Your task to perform on an android device: Go to calendar. Show me events next week Image 0: 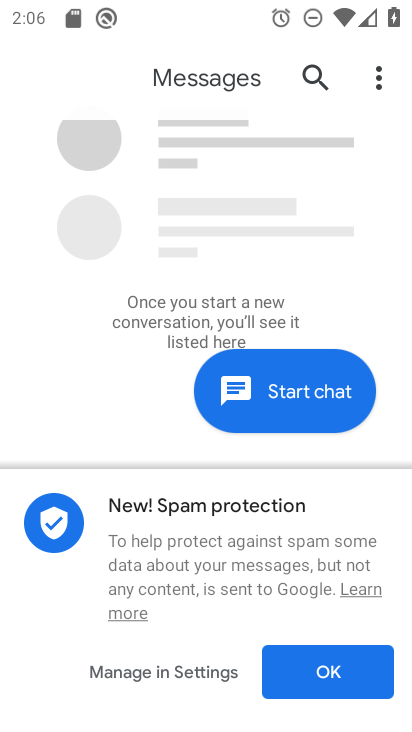
Step 0: press home button
Your task to perform on an android device: Go to calendar. Show me events next week Image 1: 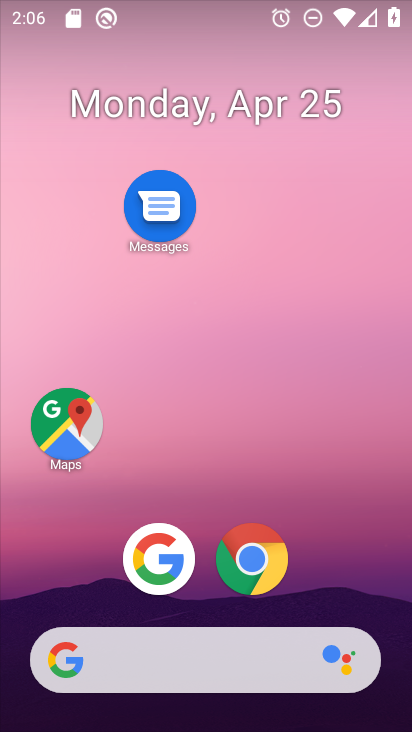
Step 1: drag from (207, 460) to (229, 69)
Your task to perform on an android device: Go to calendar. Show me events next week Image 2: 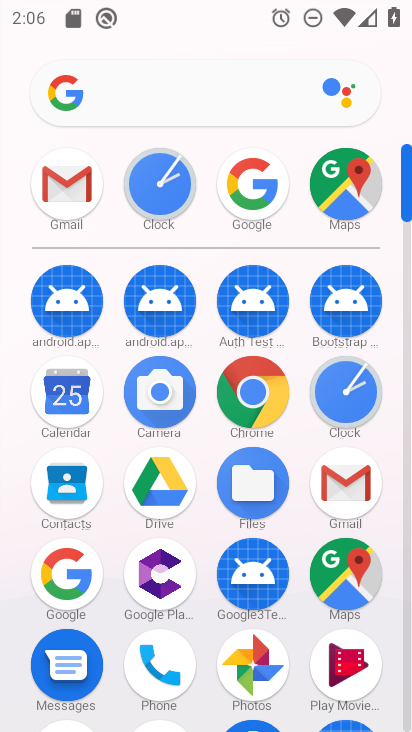
Step 2: click (68, 393)
Your task to perform on an android device: Go to calendar. Show me events next week Image 3: 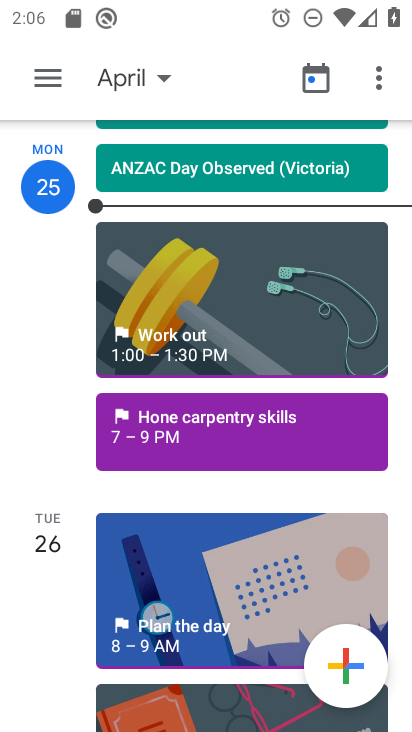
Step 3: click (160, 81)
Your task to perform on an android device: Go to calendar. Show me events next week Image 4: 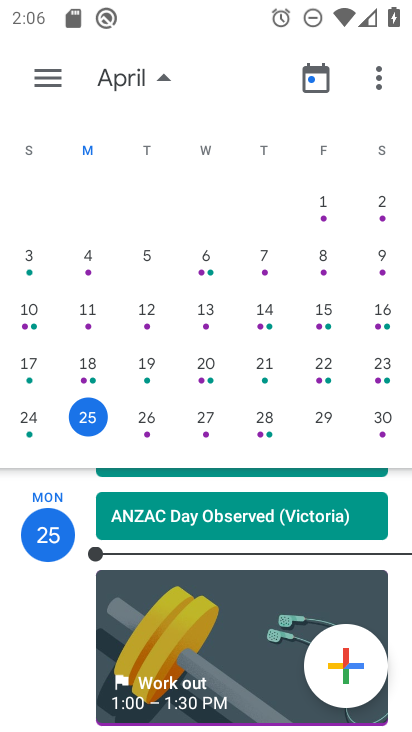
Step 4: drag from (370, 447) to (0, 455)
Your task to perform on an android device: Go to calendar. Show me events next week Image 5: 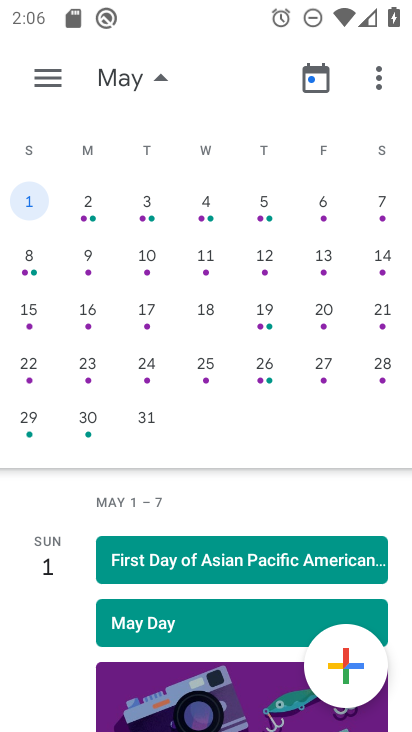
Step 5: click (89, 204)
Your task to perform on an android device: Go to calendar. Show me events next week Image 6: 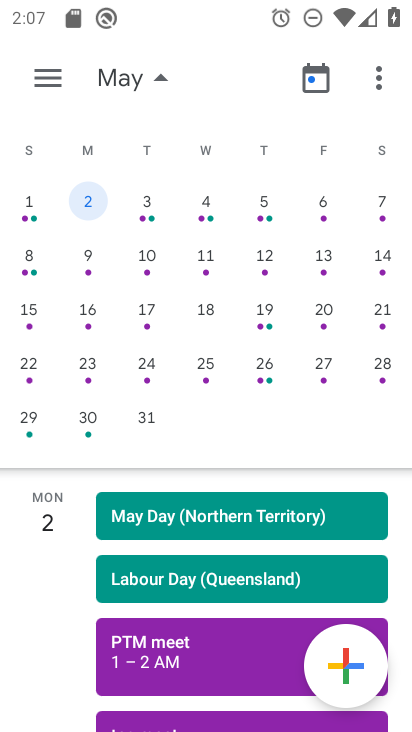
Step 6: task complete